Your task to perform on an android device: set the stopwatch Image 0: 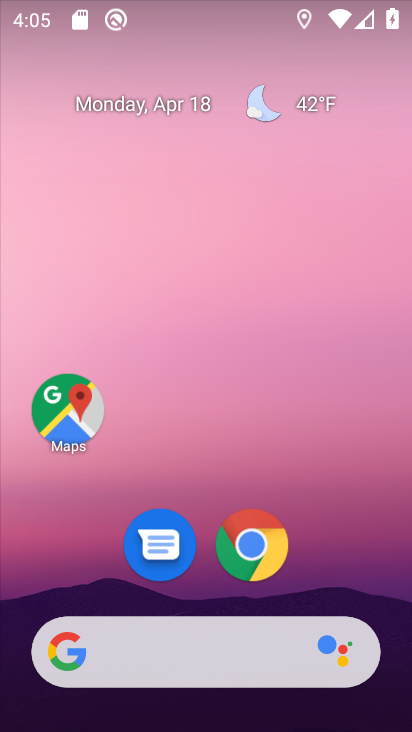
Step 0: drag from (344, 550) to (344, 122)
Your task to perform on an android device: set the stopwatch Image 1: 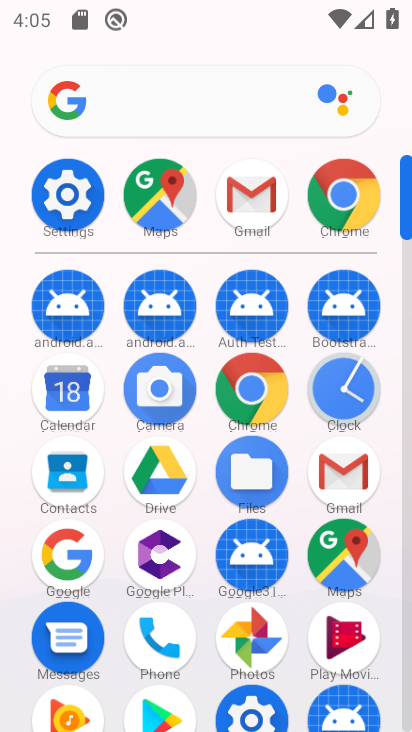
Step 1: click (349, 392)
Your task to perform on an android device: set the stopwatch Image 2: 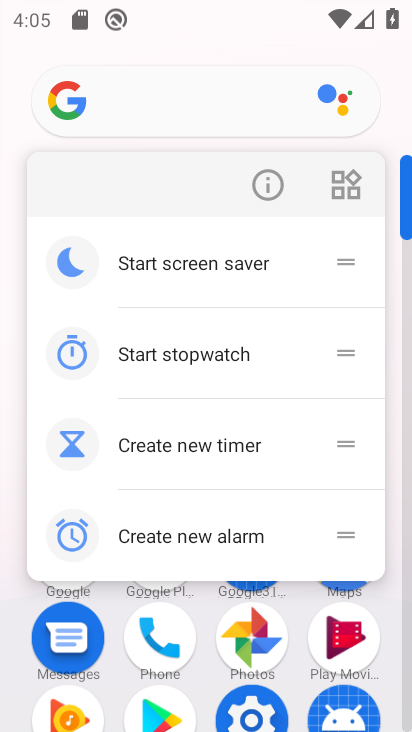
Step 2: click (349, 392)
Your task to perform on an android device: set the stopwatch Image 3: 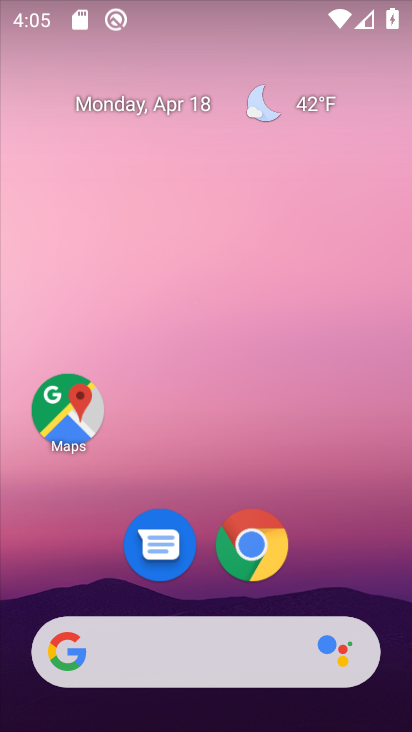
Step 3: drag from (334, 572) to (339, 205)
Your task to perform on an android device: set the stopwatch Image 4: 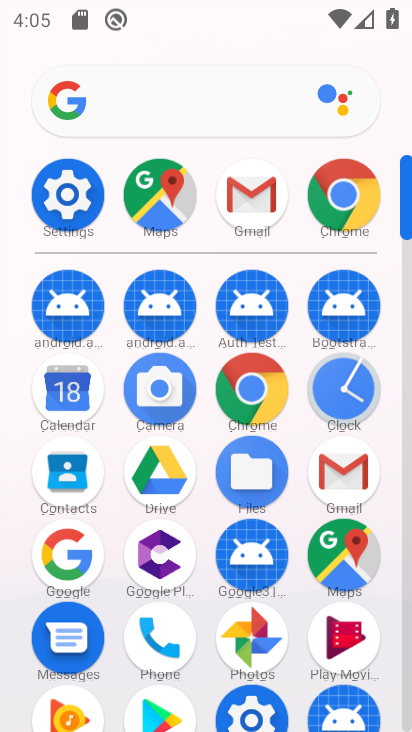
Step 4: click (356, 392)
Your task to perform on an android device: set the stopwatch Image 5: 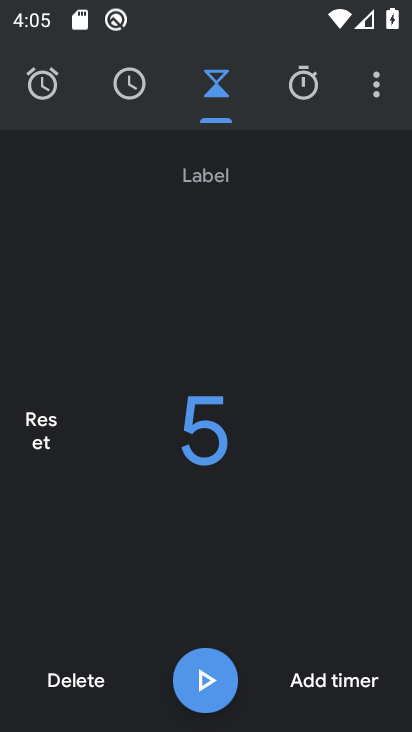
Step 5: click (305, 81)
Your task to perform on an android device: set the stopwatch Image 6: 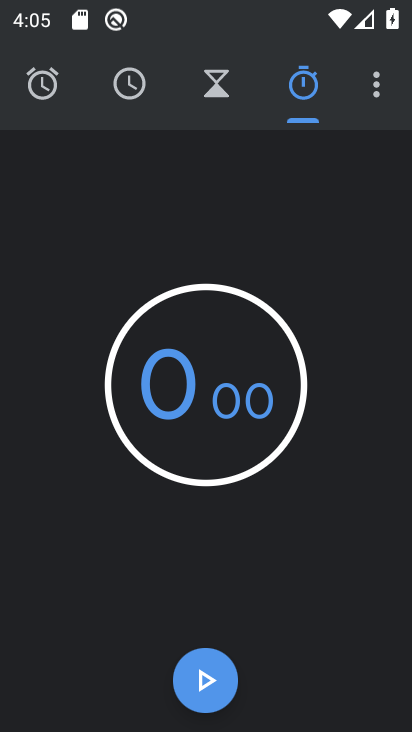
Step 6: click (200, 671)
Your task to perform on an android device: set the stopwatch Image 7: 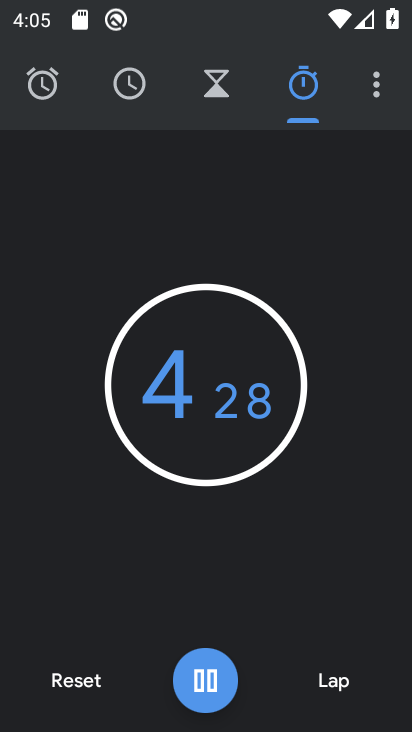
Step 7: task complete